Your task to perform on an android device: delete location history Image 0: 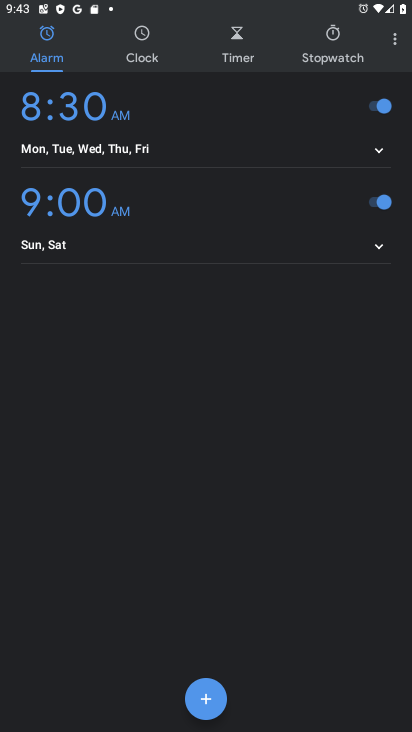
Step 0: press home button
Your task to perform on an android device: delete location history Image 1: 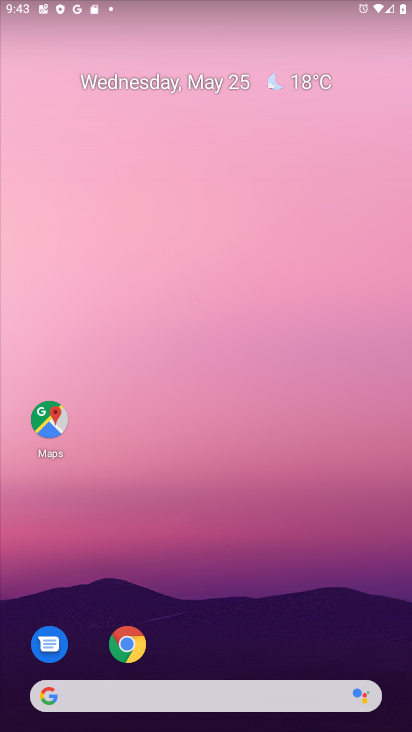
Step 1: click (47, 412)
Your task to perform on an android device: delete location history Image 2: 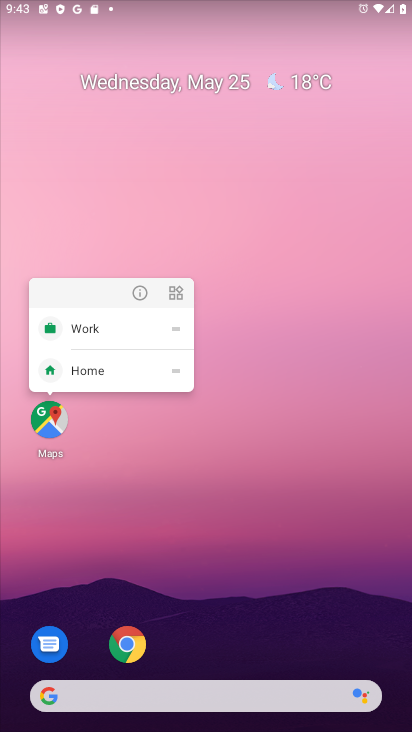
Step 2: click (47, 412)
Your task to perform on an android device: delete location history Image 3: 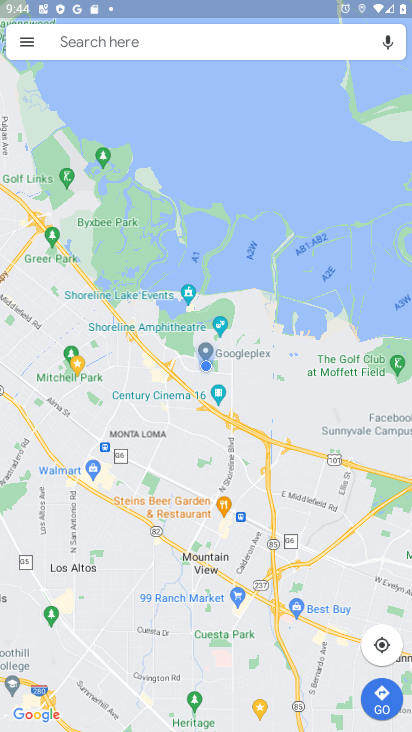
Step 3: click (20, 38)
Your task to perform on an android device: delete location history Image 4: 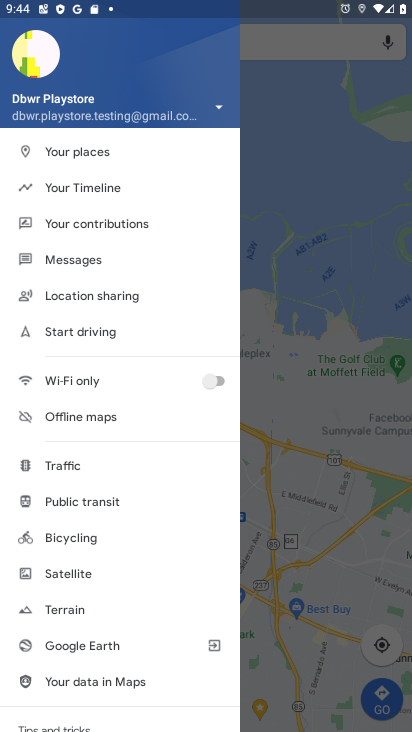
Step 4: click (125, 183)
Your task to perform on an android device: delete location history Image 5: 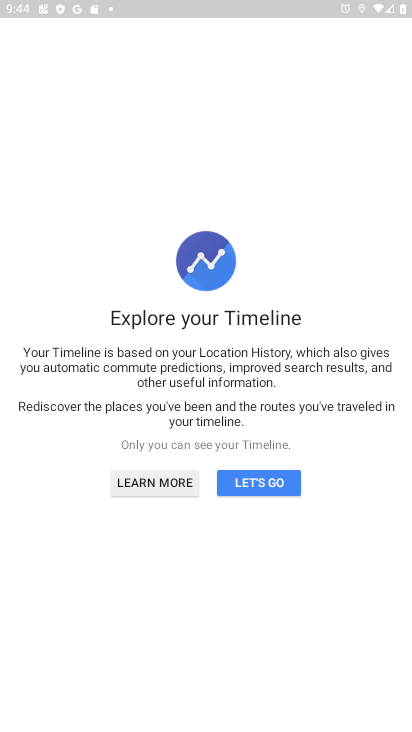
Step 5: click (259, 479)
Your task to perform on an android device: delete location history Image 6: 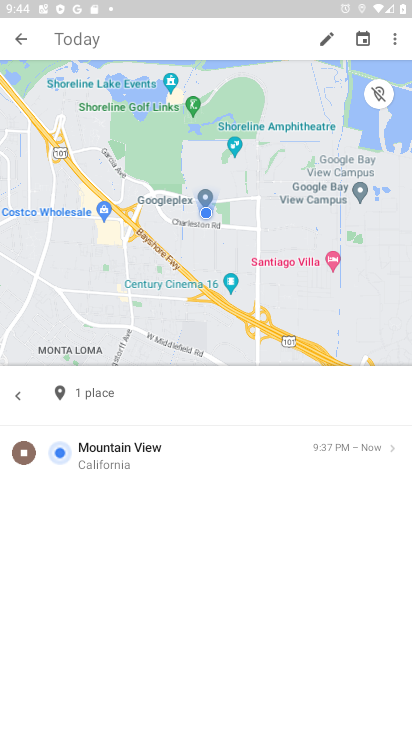
Step 6: click (398, 41)
Your task to perform on an android device: delete location history Image 7: 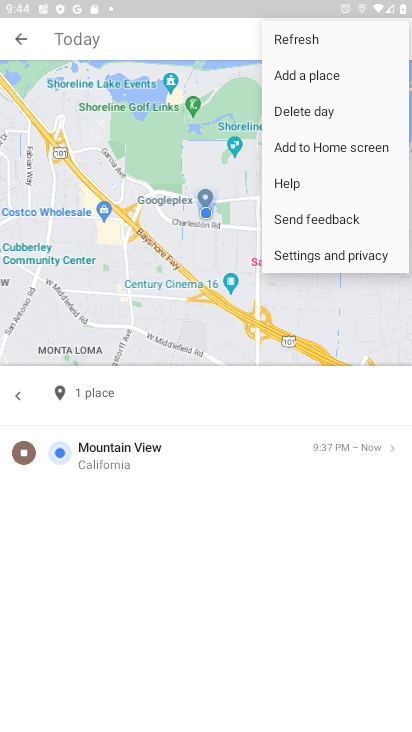
Step 7: click (312, 257)
Your task to perform on an android device: delete location history Image 8: 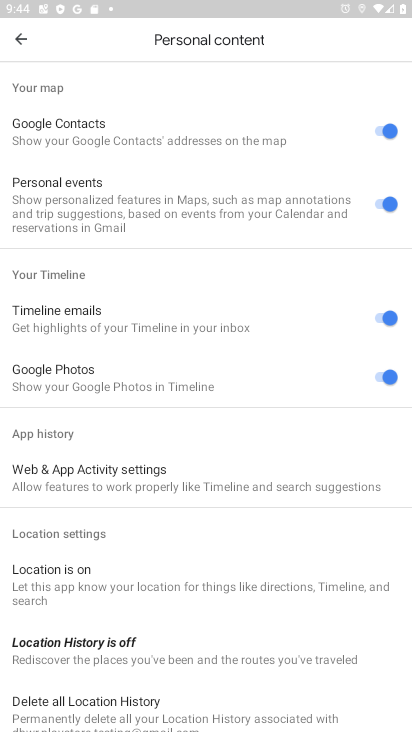
Step 8: drag from (183, 678) to (188, 372)
Your task to perform on an android device: delete location history Image 9: 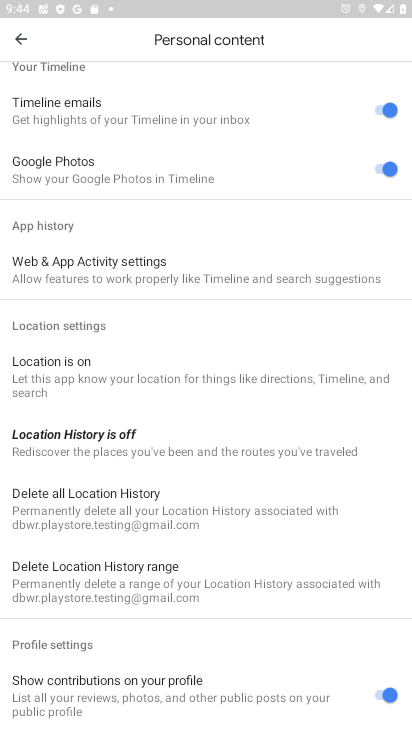
Step 9: click (101, 508)
Your task to perform on an android device: delete location history Image 10: 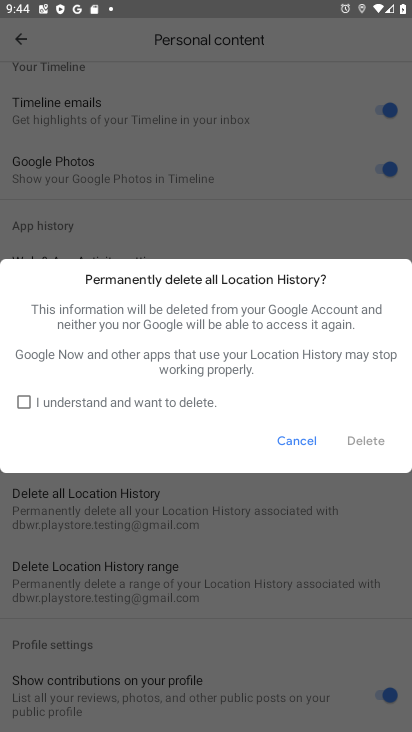
Step 10: click (24, 398)
Your task to perform on an android device: delete location history Image 11: 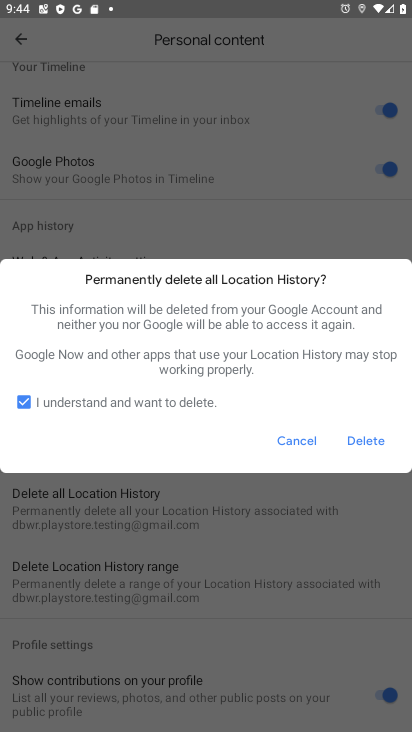
Step 11: click (364, 434)
Your task to perform on an android device: delete location history Image 12: 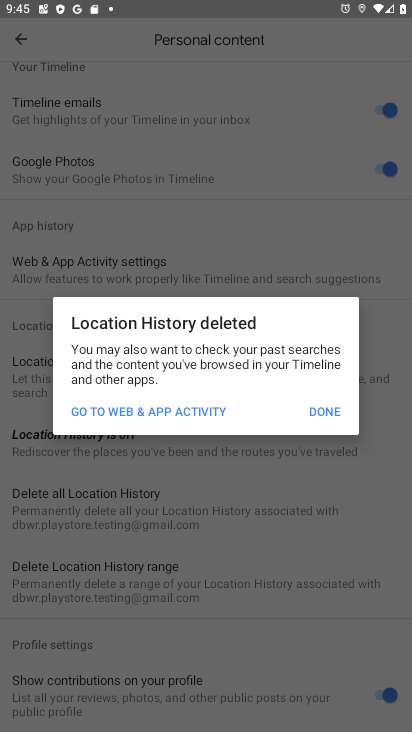
Step 12: click (323, 404)
Your task to perform on an android device: delete location history Image 13: 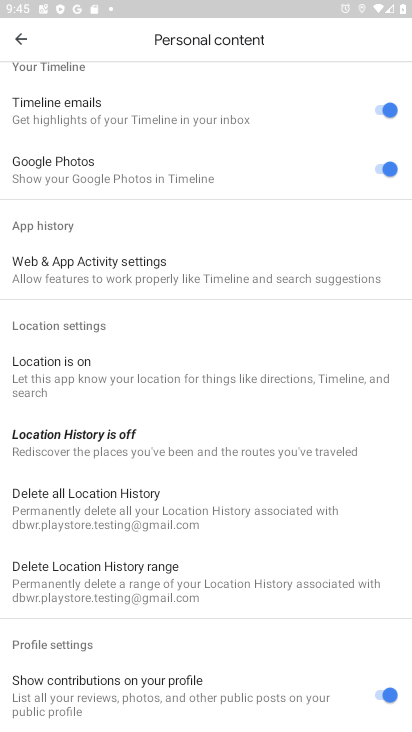
Step 13: task complete